Your task to perform on an android device: toggle notification dots Image 0: 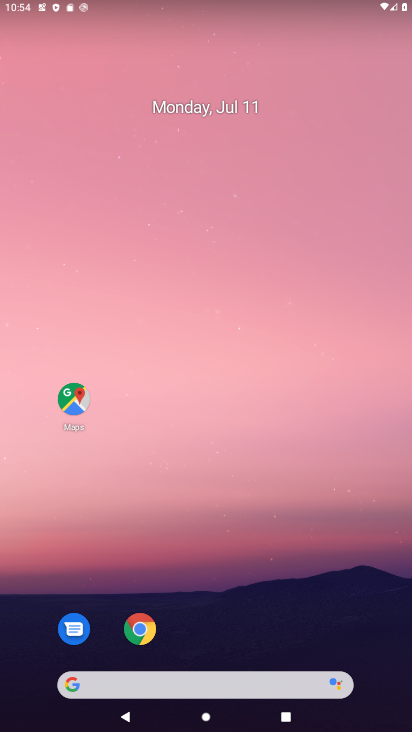
Step 0: drag from (208, 638) to (244, 196)
Your task to perform on an android device: toggle notification dots Image 1: 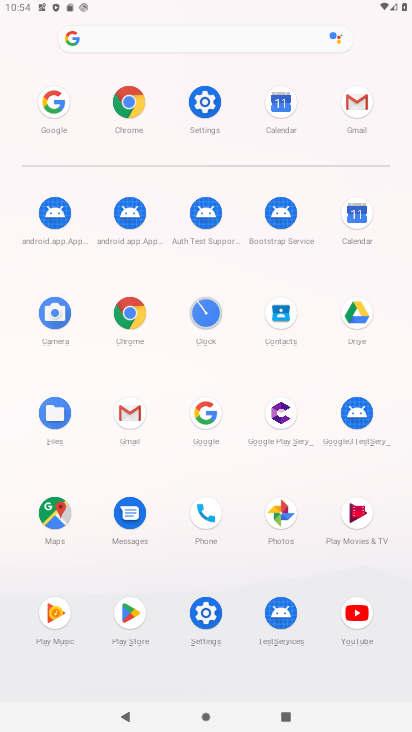
Step 1: click (181, 124)
Your task to perform on an android device: toggle notification dots Image 2: 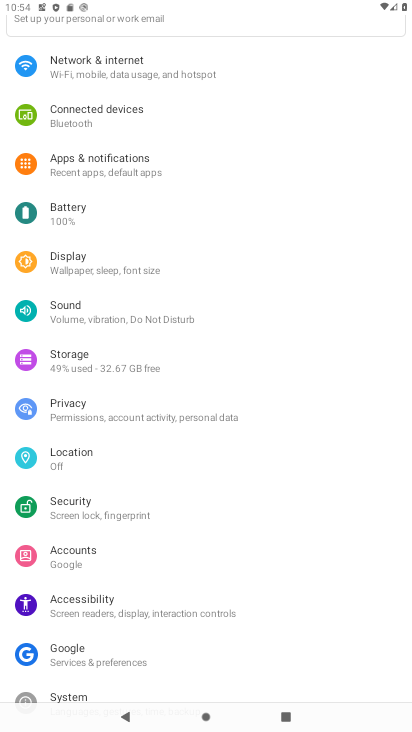
Step 2: click (139, 175)
Your task to perform on an android device: toggle notification dots Image 3: 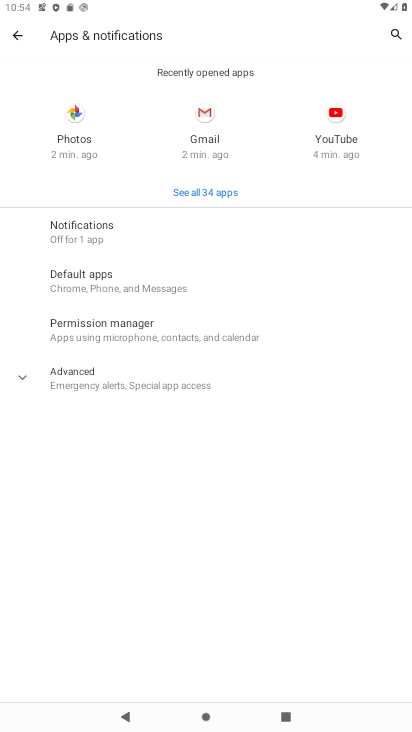
Step 3: click (131, 226)
Your task to perform on an android device: toggle notification dots Image 4: 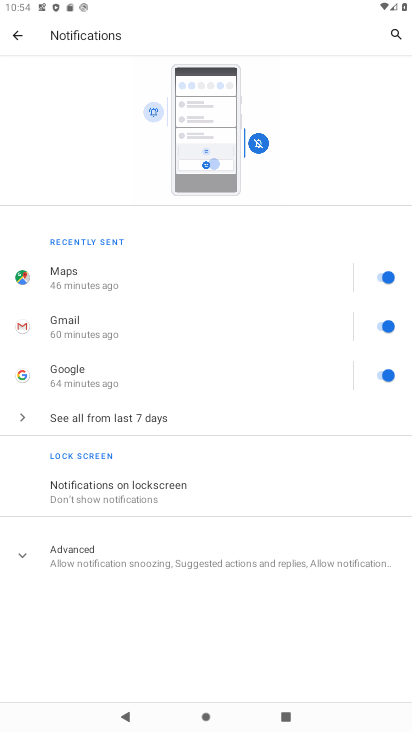
Step 4: click (138, 558)
Your task to perform on an android device: toggle notification dots Image 5: 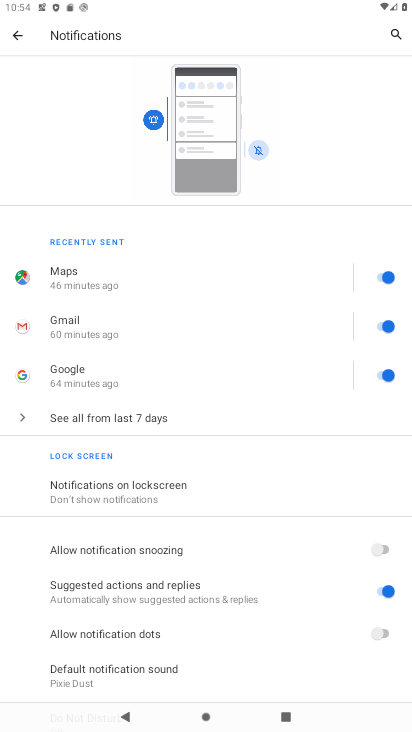
Step 5: click (384, 636)
Your task to perform on an android device: toggle notification dots Image 6: 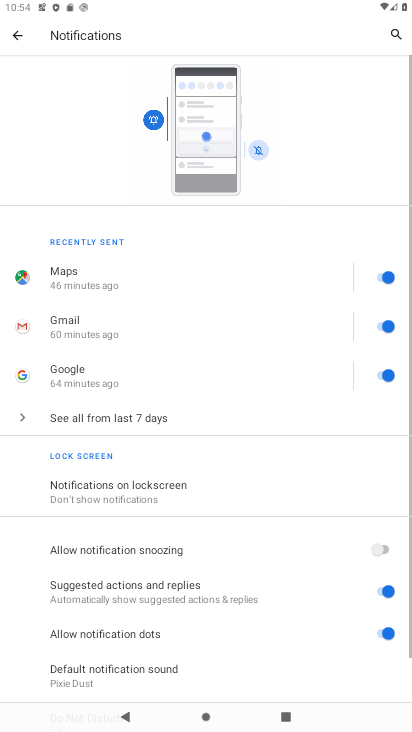
Step 6: task complete